Your task to perform on an android device: change the clock display to digital Image 0: 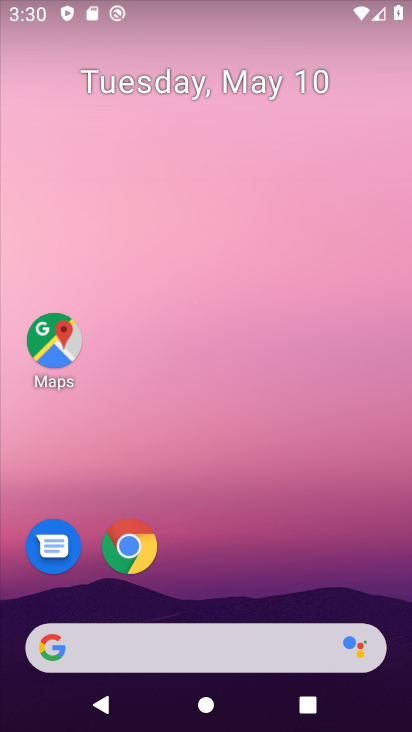
Step 0: drag from (204, 622) to (289, 167)
Your task to perform on an android device: change the clock display to digital Image 1: 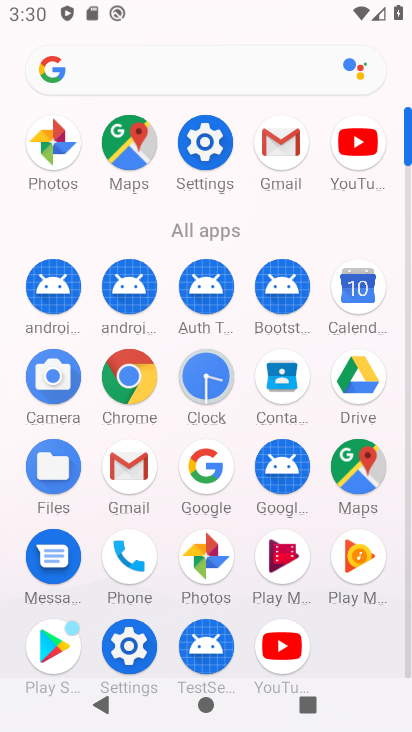
Step 1: click (200, 382)
Your task to perform on an android device: change the clock display to digital Image 2: 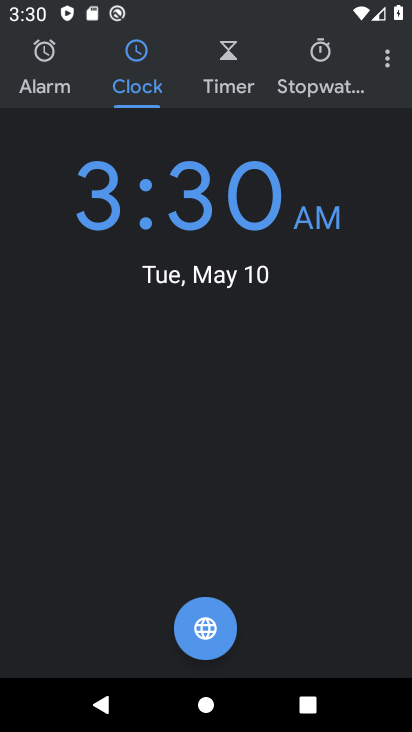
Step 2: click (397, 54)
Your task to perform on an android device: change the clock display to digital Image 3: 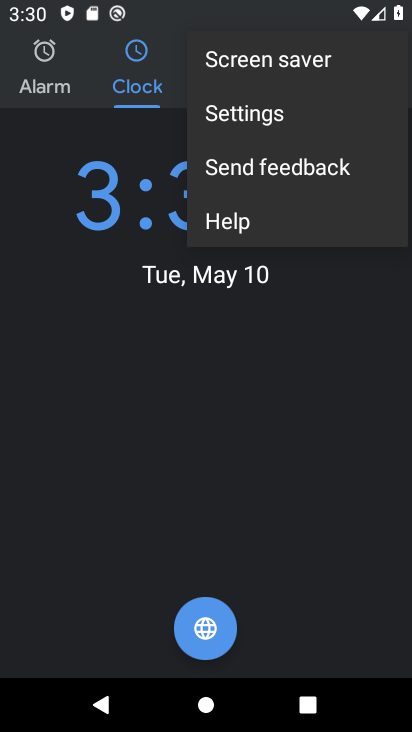
Step 3: click (320, 135)
Your task to perform on an android device: change the clock display to digital Image 4: 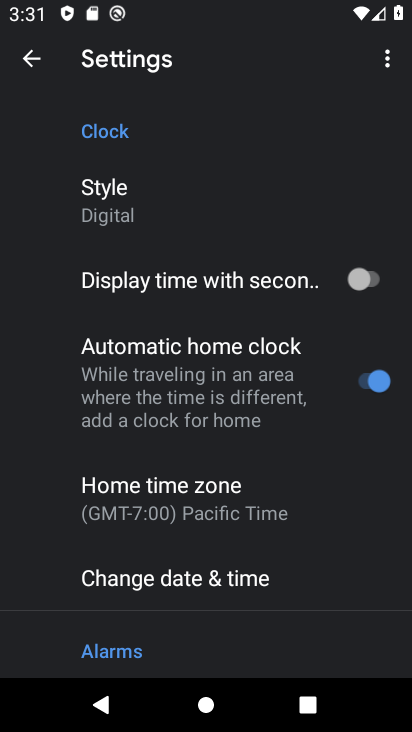
Step 4: task complete